Your task to perform on an android device: Is it going to rain tomorrow? Image 0: 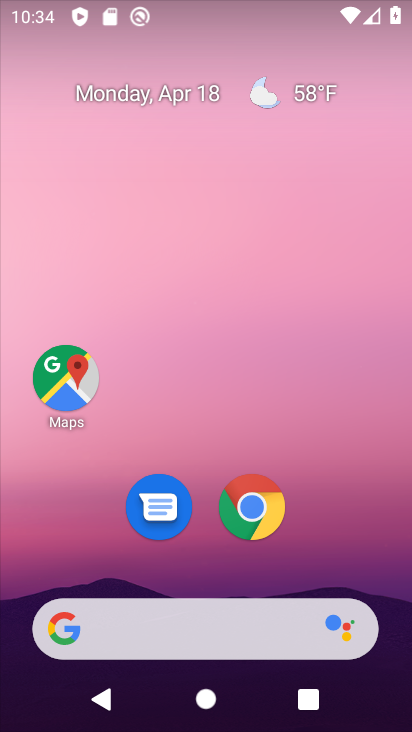
Step 0: click (182, 658)
Your task to perform on an android device: Is it going to rain tomorrow? Image 1: 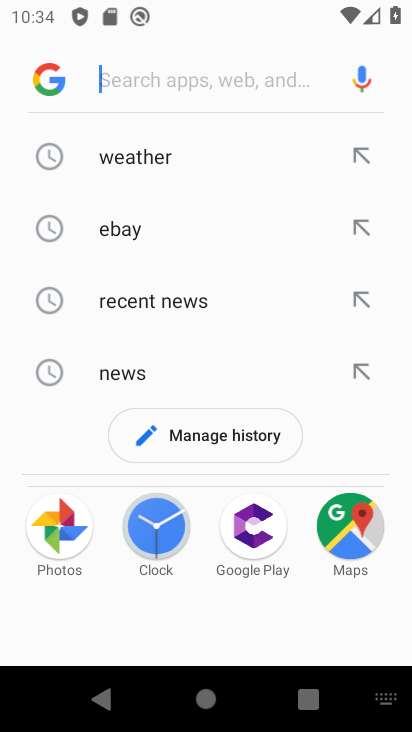
Step 1: click (58, 85)
Your task to perform on an android device: Is it going to rain tomorrow? Image 2: 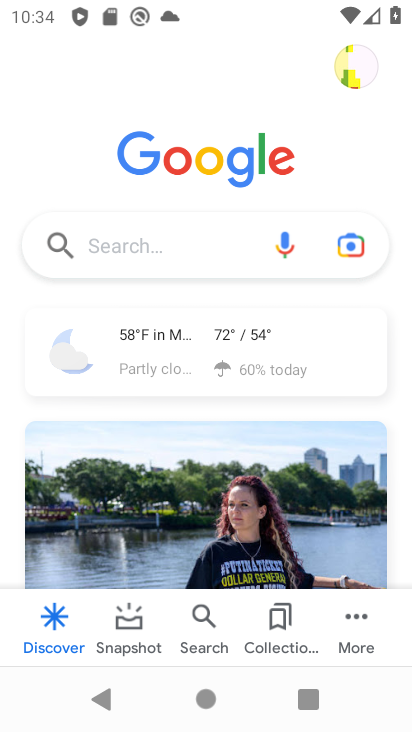
Step 2: click (167, 365)
Your task to perform on an android device: Is it going to rain tomorrow? Image 3: 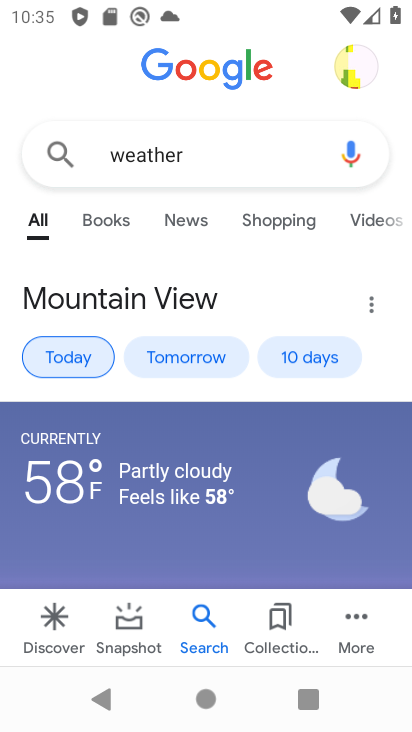
Step 3: click (208, 362)
Your task to perform on an android device: Is it going to rain tomorrow? Image 4: 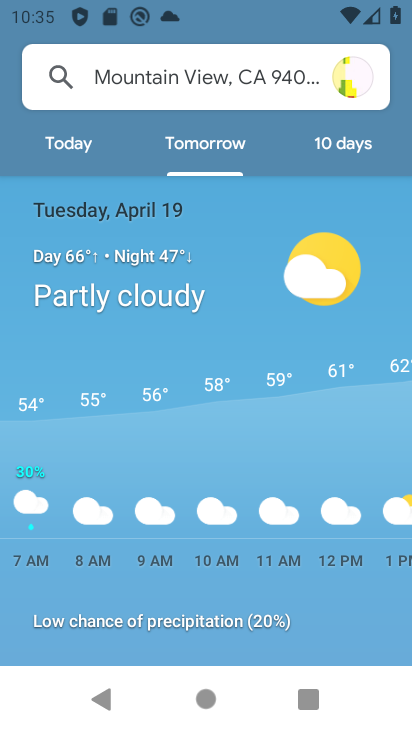
Step 4: task complete